Your task to perform on an android device: Search for vegetarian restaurants on Maps Image 0: 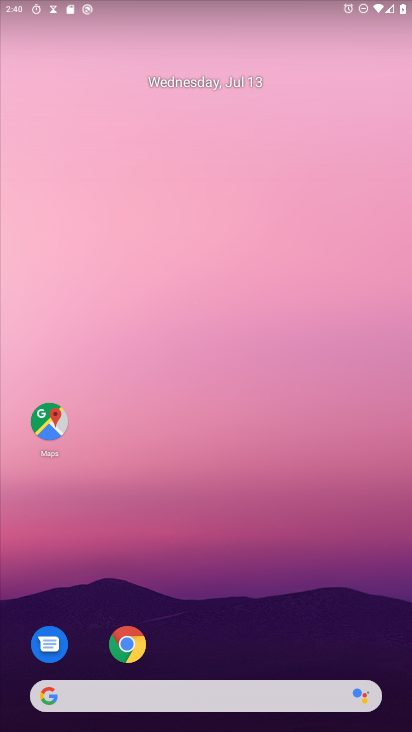
Step 0: press home button
Your task to perform on an android device: Search for vegetarian restaurants on Maps Image 1: 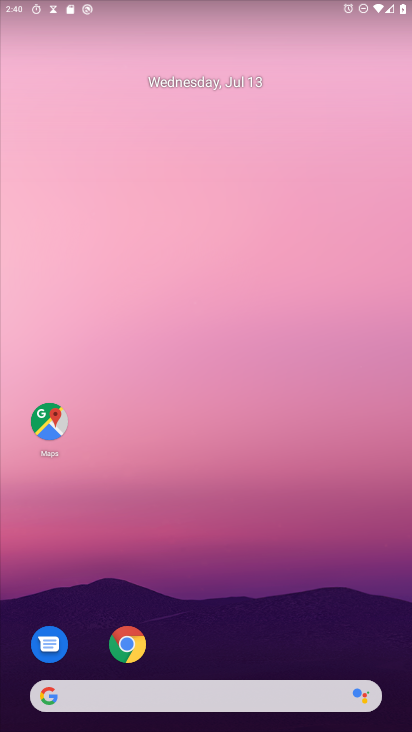
Step 1: click (40, 419)
Your task to perform on an android device: Search for vegetarian restaurants on Maps Image 2: 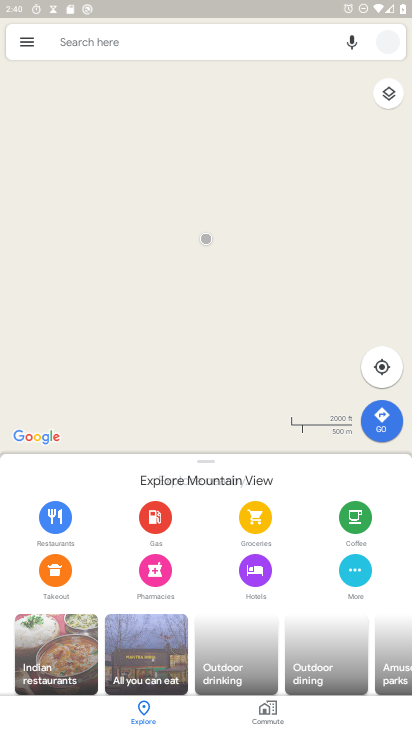
Step 2: click (69, 39)
Your task to perform on an android device: Search for vegetarian restaurants on Maps Image 3: 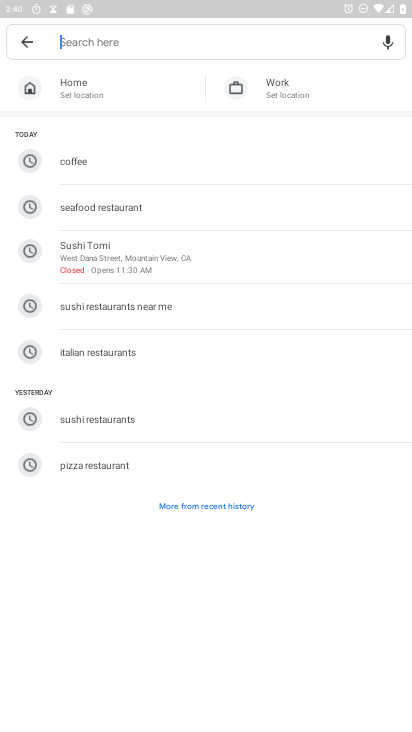
Step 3: type "vegetarian restaurants"
Your task to perform on an android device: Search for vegetarian restaurants on Maps Image 4: 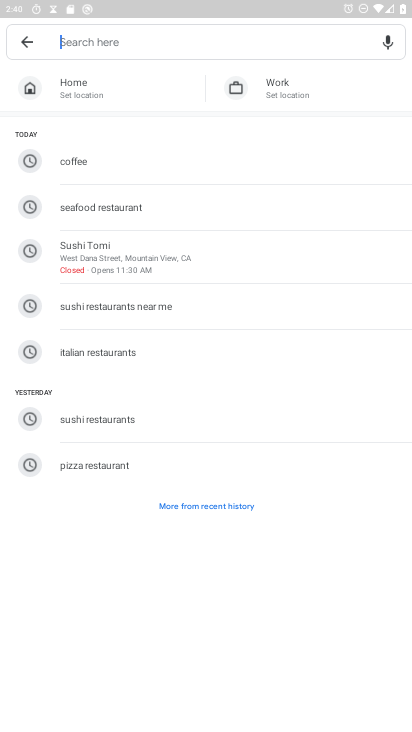
Step 4: click (75, 37)
Your task to perform on an android device: Search for vegetarian restaurants on Maps Image 5: 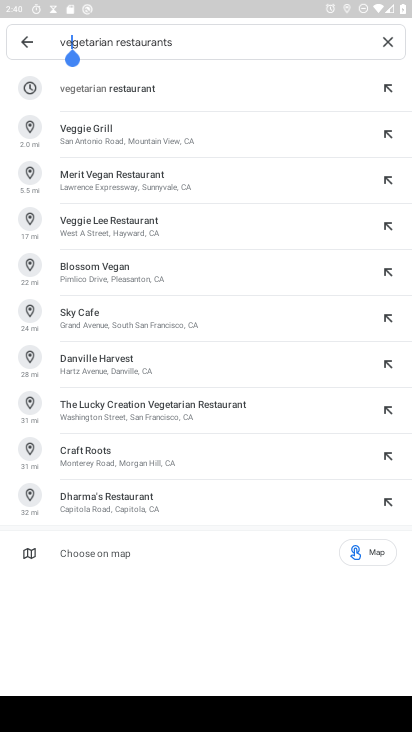
Step 5: press enter
Your task to perform on an android device: Search for vegetarian restaurants on Maps Image 6: 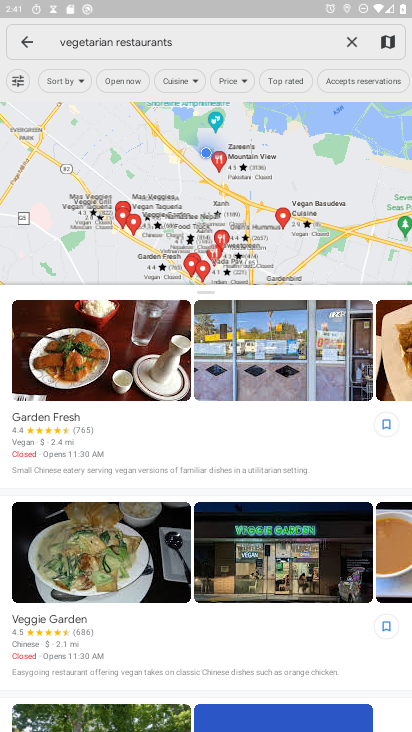
Step 6: task complete